Your task to perform on an android device: What is the news today? Image 0: 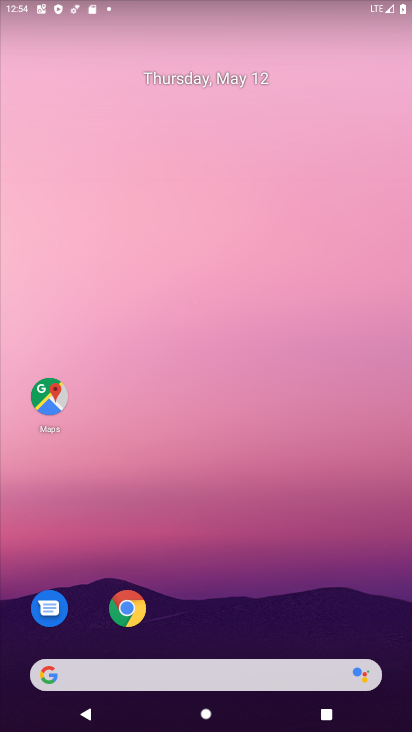
Step 0: click (87, 672)
Your task to perform on an android device: What is the news today? Image 1: 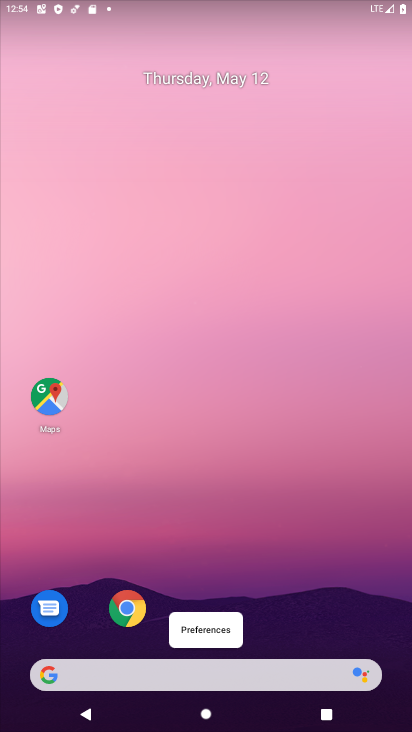
Step 1: click (86, 672)
Your task to perform on an android device: What is the news today? Image 2: 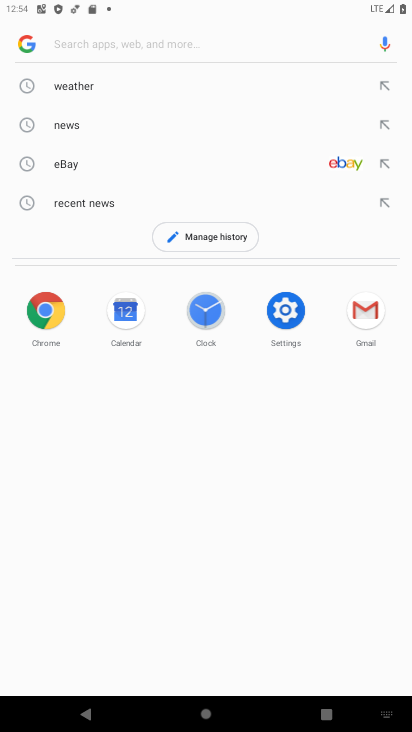
Step 2: click (95, 37)
Your task to perform on an android device: What is the news today? Image 3: 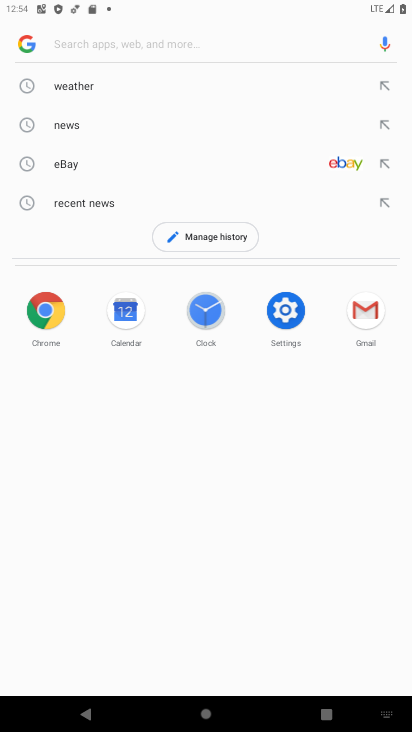
Step 3: type "today's news"
Your task to perform on an android device: What is the news today? Image 4: 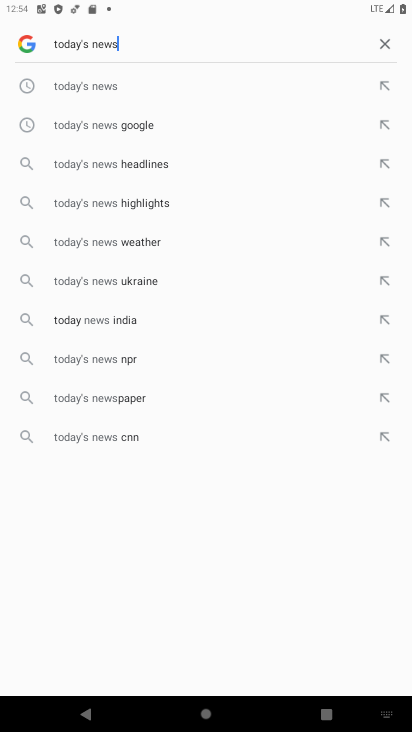
Step 4: click (107, 92)
Your task to perform on an android device: What is the news today? Image 5: 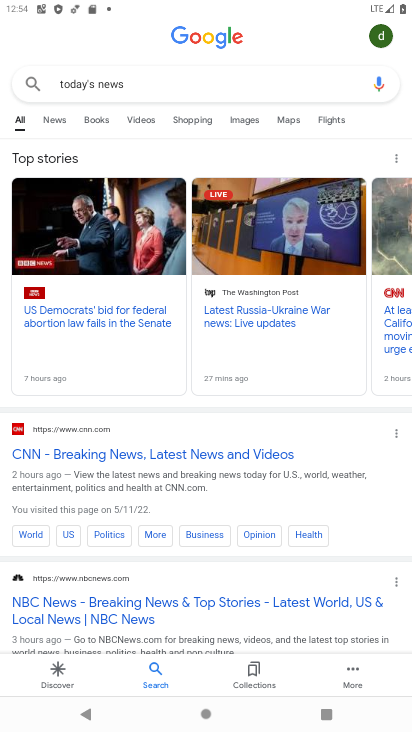
Step 5: click (65, 120)
Your task to perform on an android device: What is the news today? Image 6: 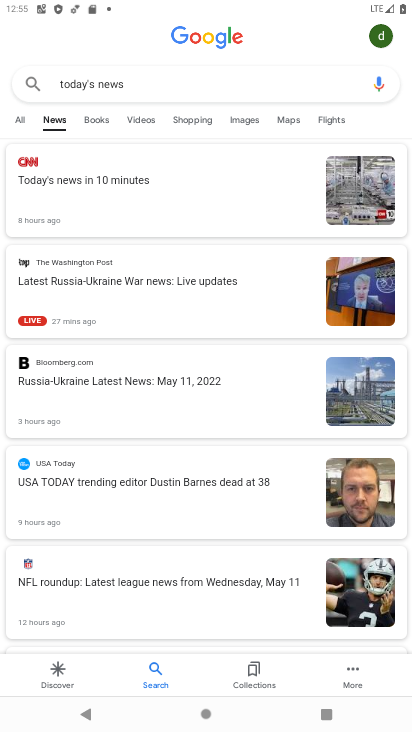
Step 6: click (150, 306)
Your task to perform on an android device: What is the news today? Image 7: 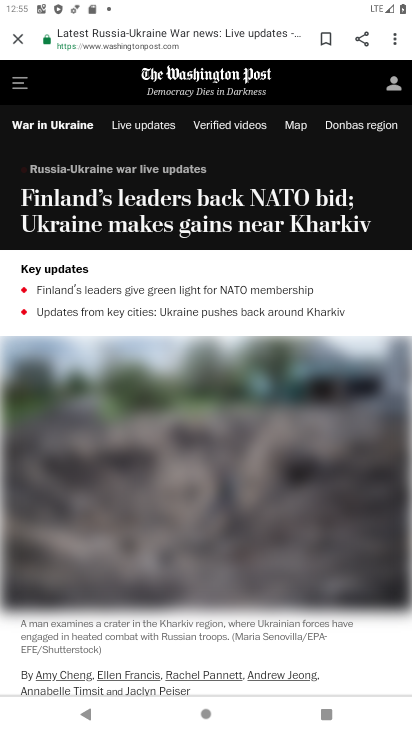
Step 7: task complete